Your task to perform on an android device: change the clock display to show seconds Image 0: 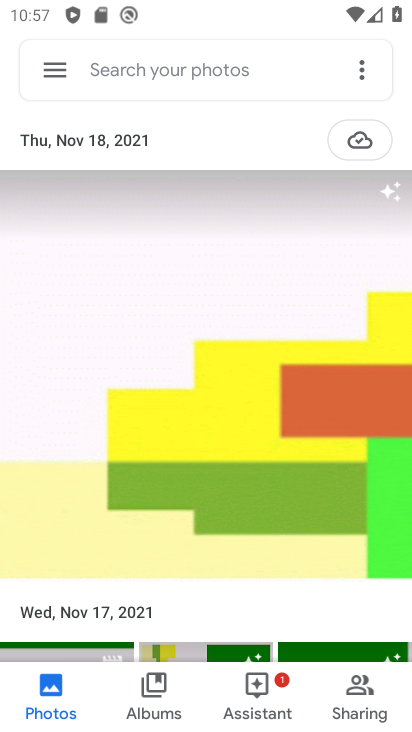
Step 0: press home button
Your task to perform on an android device: change the clock display to show seconds Image 1: 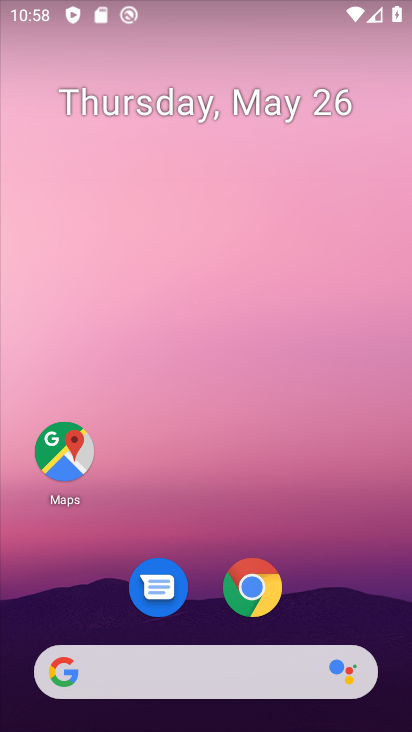
Step 1: drag from (235, 709) to (350, 202)
Your task to perform on an android device: change the clock display to show seconds Image 2: 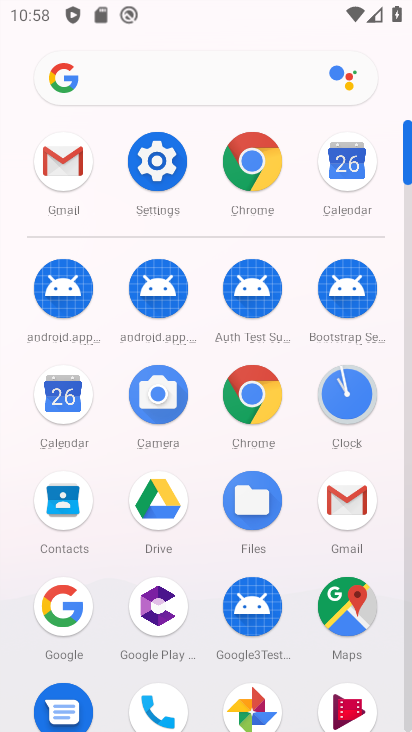
Step 2: click (335, 383)
Your task to perform on an android device: change the clock display to show seconds Image 3: 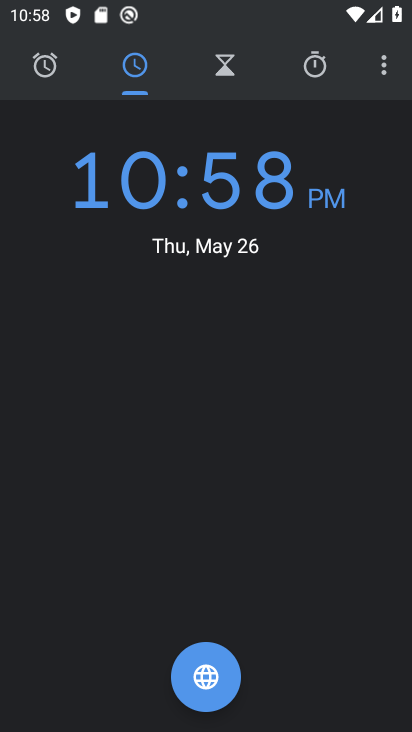
Step 3: click (377, 70)
Your task to perform on an android device: change the clock display to show seconds Image 4: 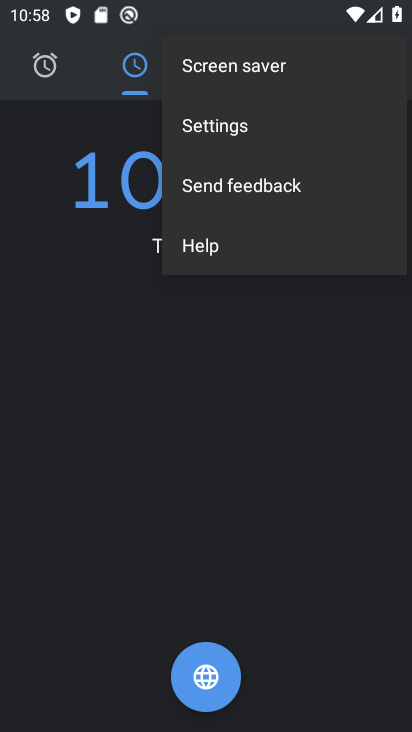
Step 4: click (249, 129)
Your task to perform on an android device: change the clock display to show seconds Image 5: 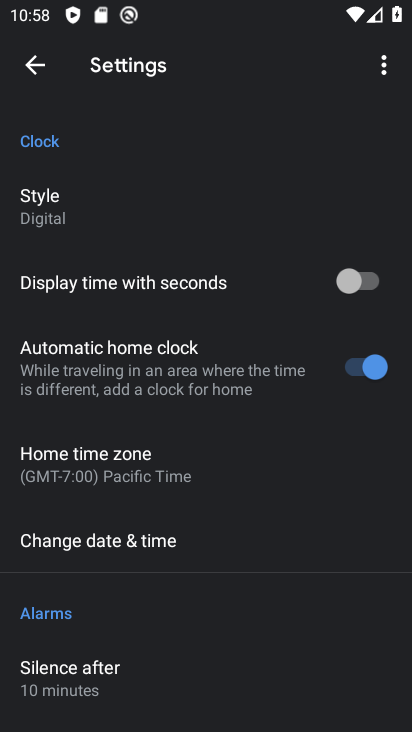
Step 5: click (367, 269)
Your task to perform on an android device: change the clock display to show seconds Image 6: 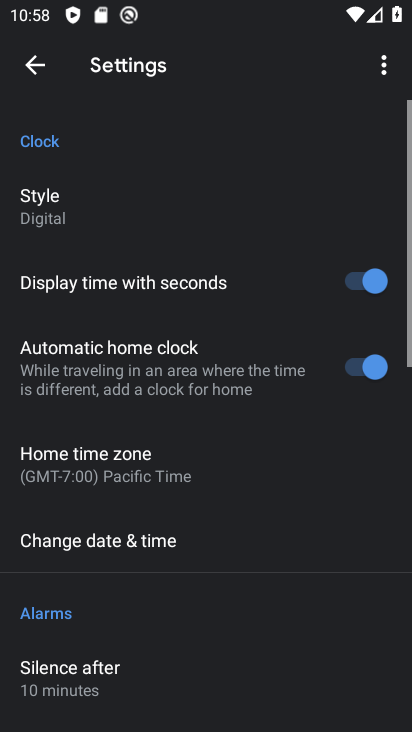
Step 6: task complete